Your task to perform on an android device: Open Google Chrome Image 0: 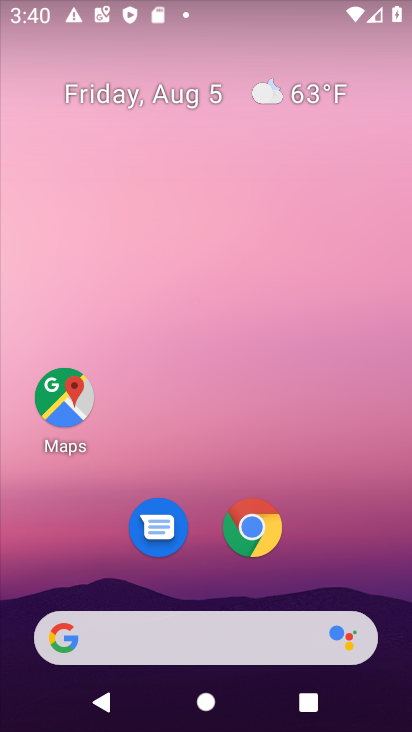
Step 0: click (252, 530)
Your task to perform on an android device: Open Google Chrome Image 1: 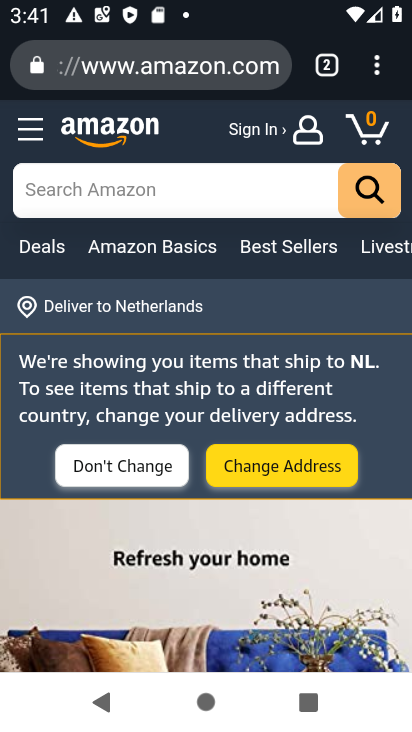
Step 1: task complete